Your task to perform on an android device: create a new album in the google photos Image 0: 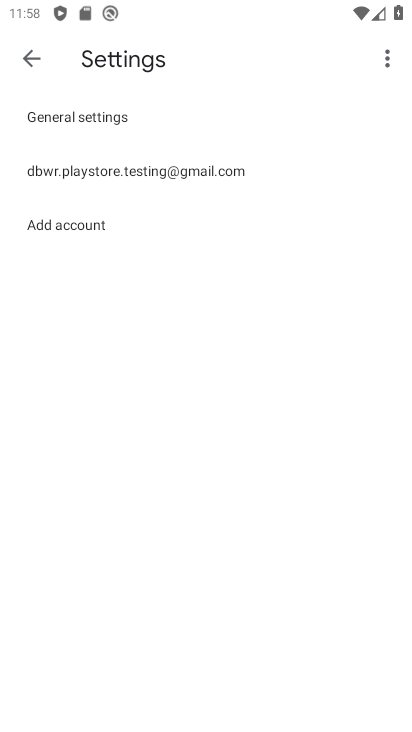
Step 0: press home button
Your task to perform on an android device: create a new album in the google photos Image 1: 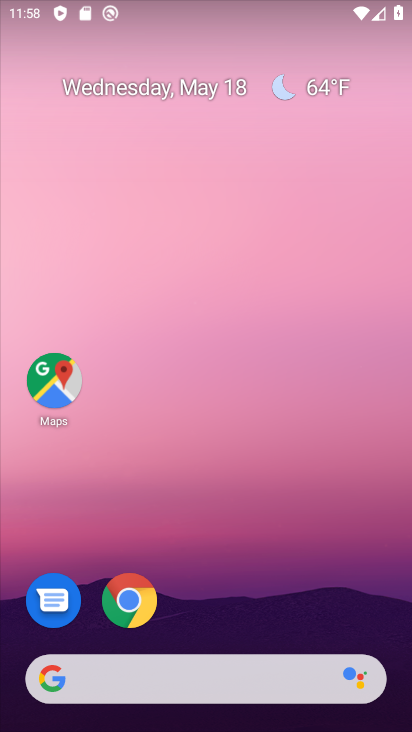
Step 1: drag from (221, 645) to (155, 61)
Your task to perform on an android device: create a new album in the google photos Image 2: 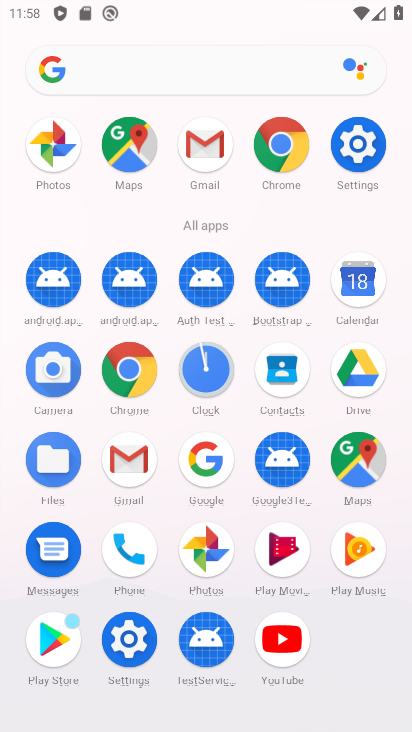
Step 2: click (197, 554)
Your task to perform on an android device: create a new album in the google photos Image 3: 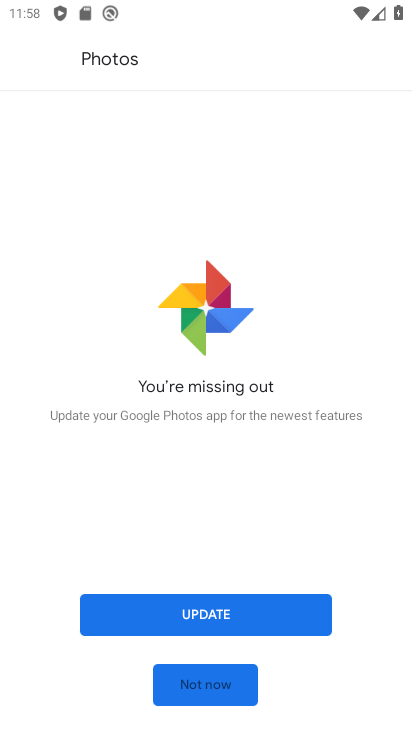
Step 3: click (218, 665)
Your task to perform on an android device: create a new album in the google photos Image 4: 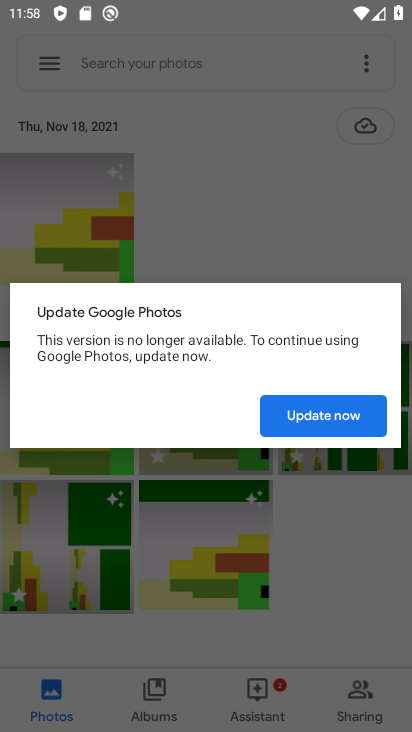
Step 4: click (322, 400)
Your task to perform on an android device: create a new album in the google photos Image 5: 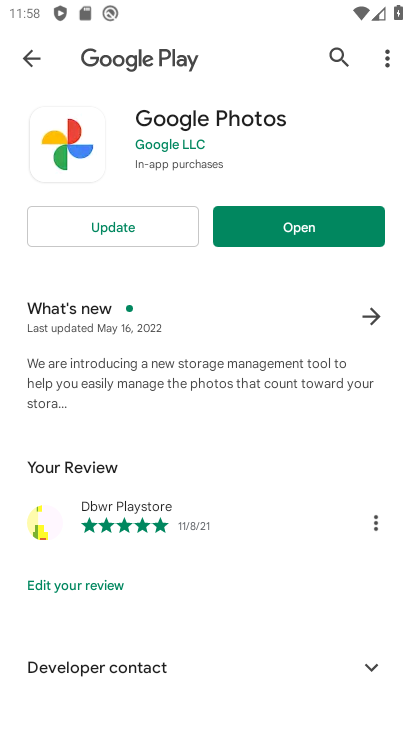
Step 5: click (278, 224)
Your task to perform on an android device: create a new album in the google photos Image 6: 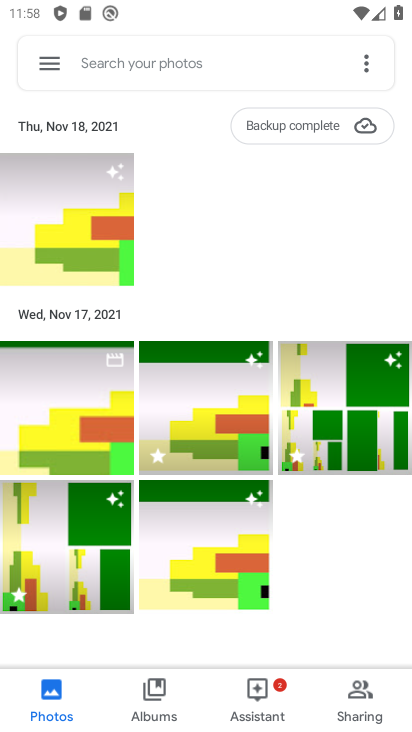
Step 6: click (104, 247)
Your task to perform on an android device: create a new album in the google photos Image 7: 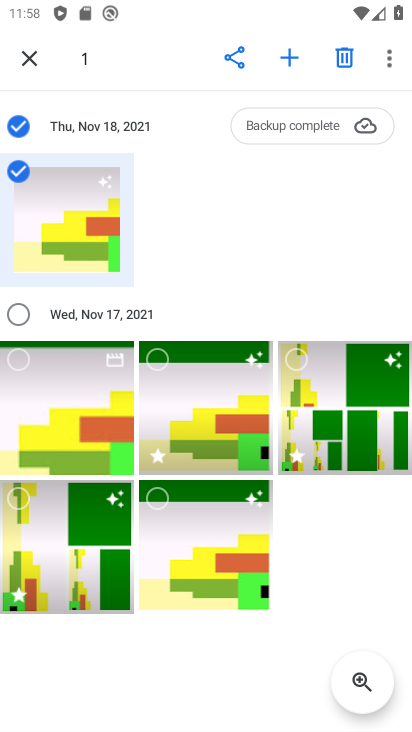
Step 7: click (106, 353)
Your task to perform on an android device: create a new album in the google photos Image 8: 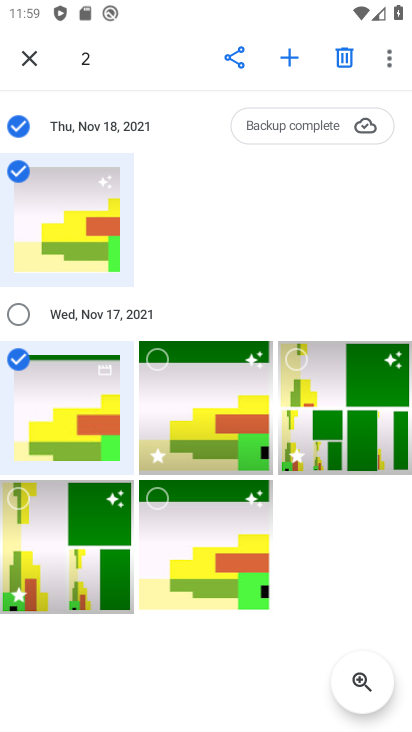
Step 8: click (290, 57)
Your task to perform on an android device: create a new album in the google photos Image 9: 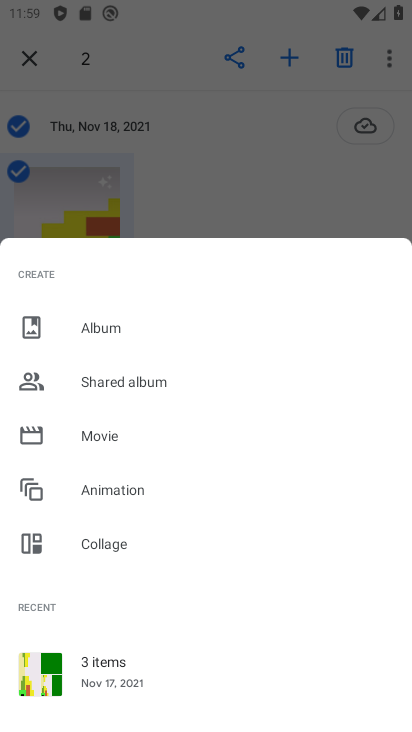
Step 9: click (106, 329)
Your task to perform on an android device: create a new album in the google photos Image 10: 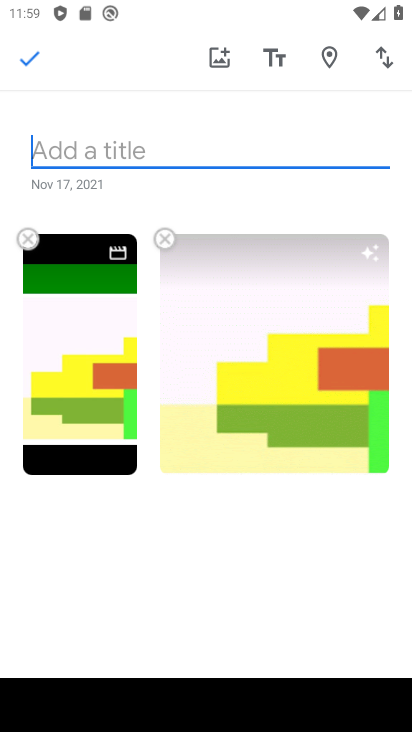
Step 10: type "ji"
Your task to perform on an android device: create a new album in the google photos Image 11: 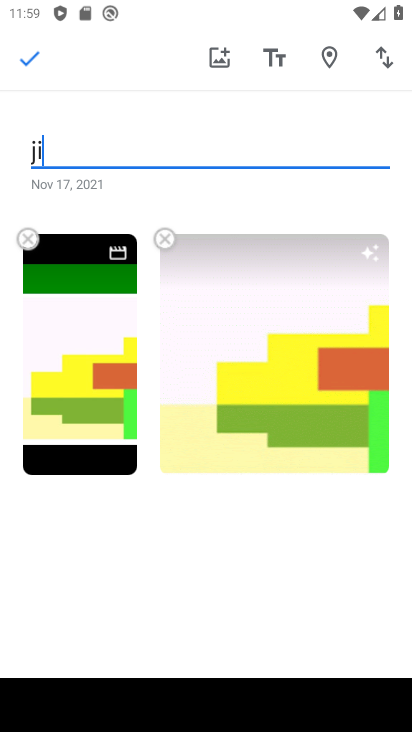
Step 11: click (27, 49)
Your task to perform on an android device: create a new album in the google photos Image 12: 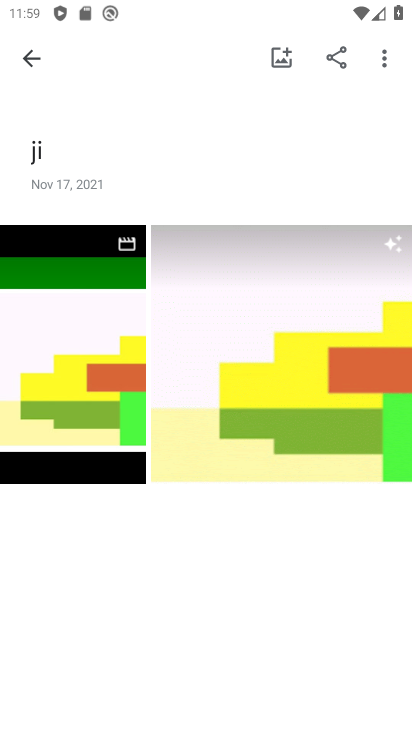
Step 12: task complete